Your task to perform on an android device: open device folders in google photos Image 0: 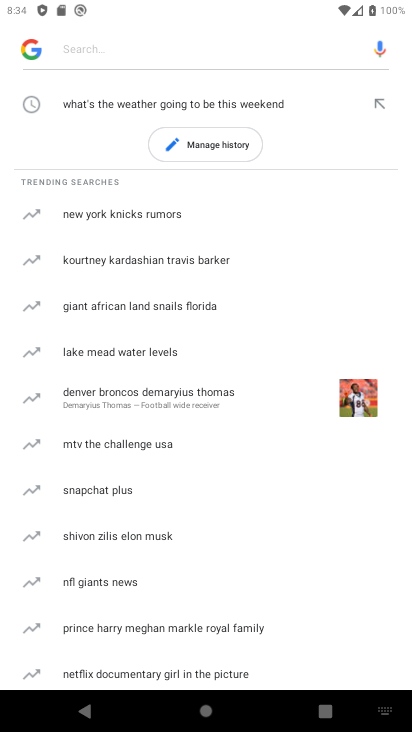
Step 0: press home button
Your task to perform on an android device: open device folders in google photos Image 1: 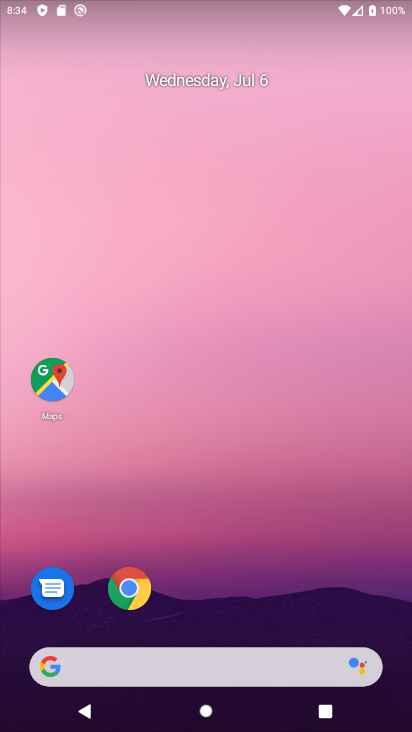
Step 1: drag from (232, 567) to (237, 56)
Your task to perform on an android device: open device folders in google photos Image 2: 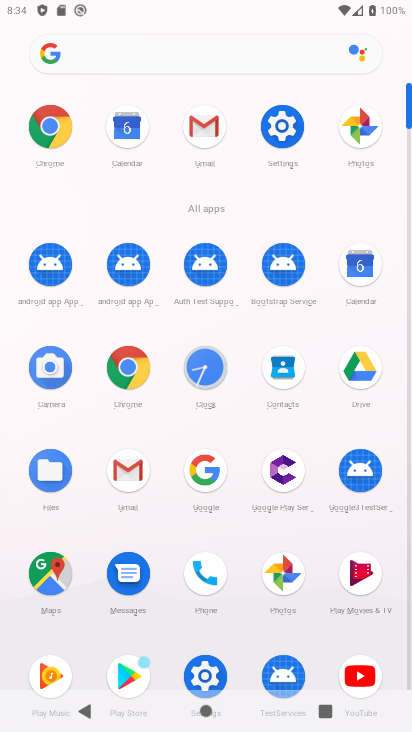
Step 2: click (359, 121)
Your task to perform on an android device: open device folders in google photos Image 3: 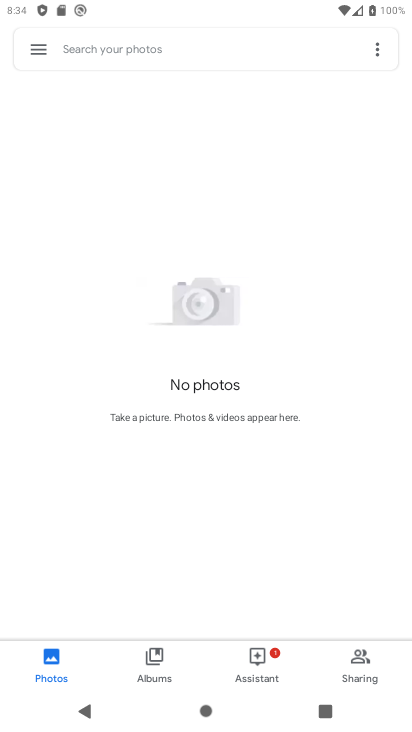
Step 3: click (26, 42)
Your task to perform on an android device: open device folders in google photos Image 4: 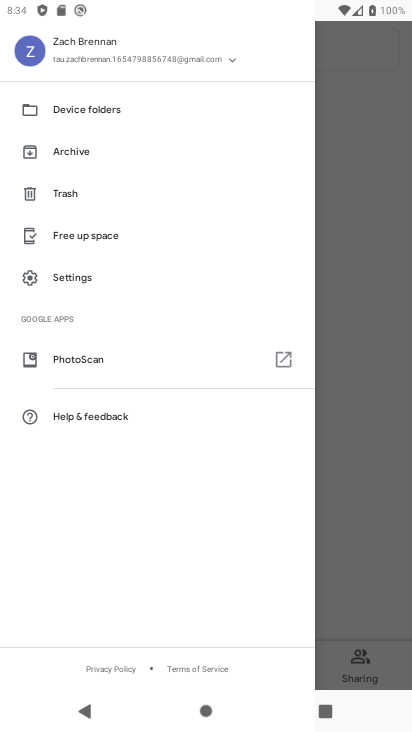
Step 4: click (89, 103)
Your task to perform on an android device: open device folders in google photos Image 5: 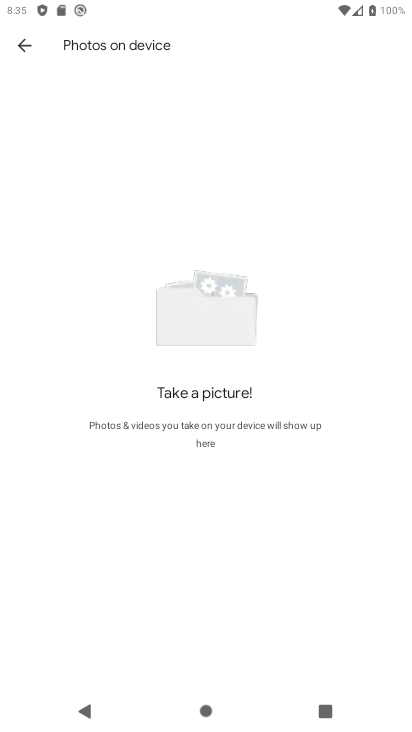
Step 5: task complete